Your task to perform on an android device: turn off data saver in the chrome app Image 0: 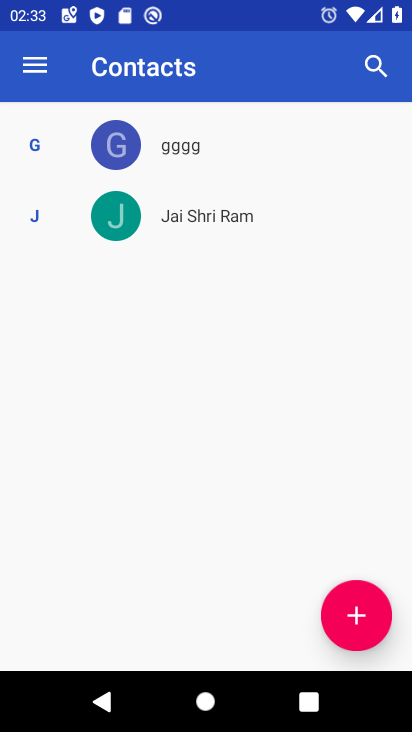
Step 0: press home button
Your task to perform on an android device: turn off data saver in the chrome app Image 1: 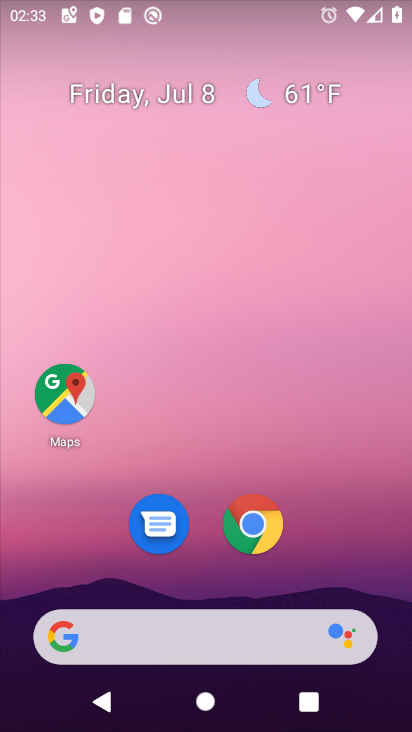
Step 1: click (271, 528)
Your task to perform on an android device: turn off data saver in the chrome app Image 2: 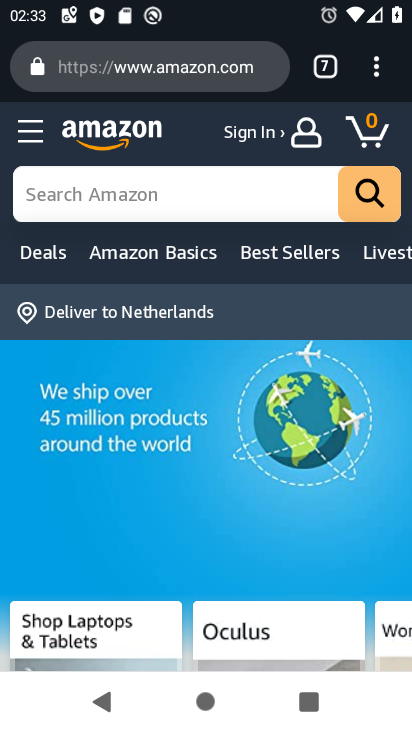
Step 2: click (378, 72)
Your task to perform on an android device: turn off data saver in the chrome app Image 3: 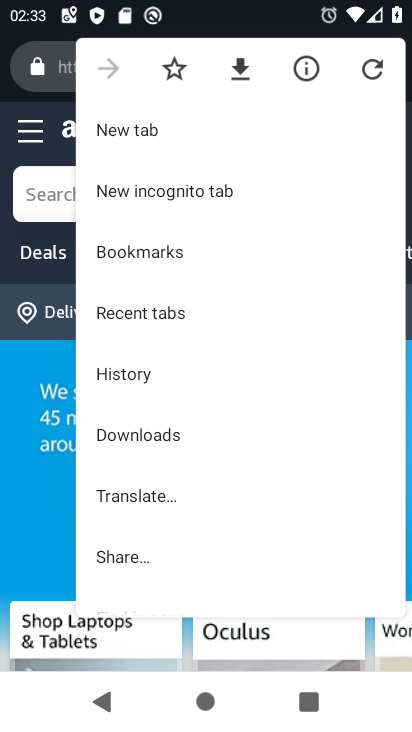
Step 3: drag from (249, 431) to (266, 186)
Your task to perform on an android device: turn off data saver in the chrome app Image 4: 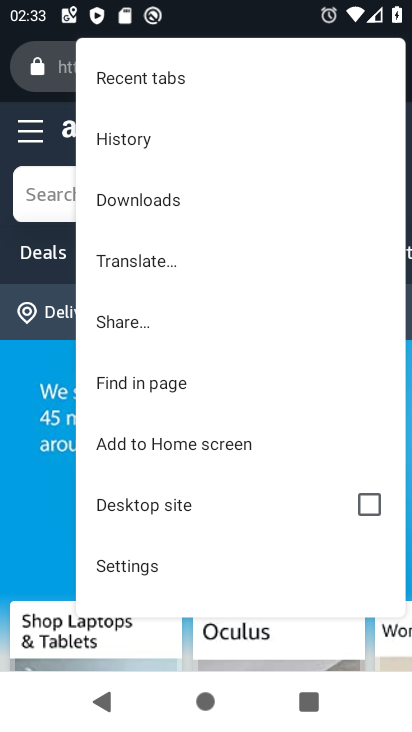
Step 4: click (150, 561)
Your task to perform on an android device: turn off data saver in the chrome app Image 5: 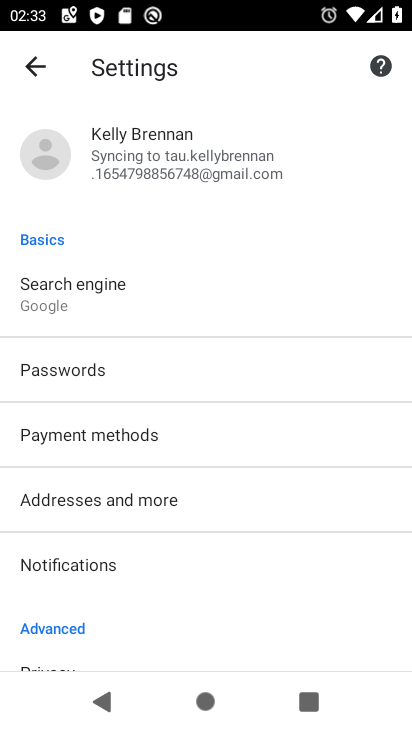
Step 5: drag from (225, 597) to (252, 22)
Your task to perform on an android device: turn off data saver in the chrome app Image 6: 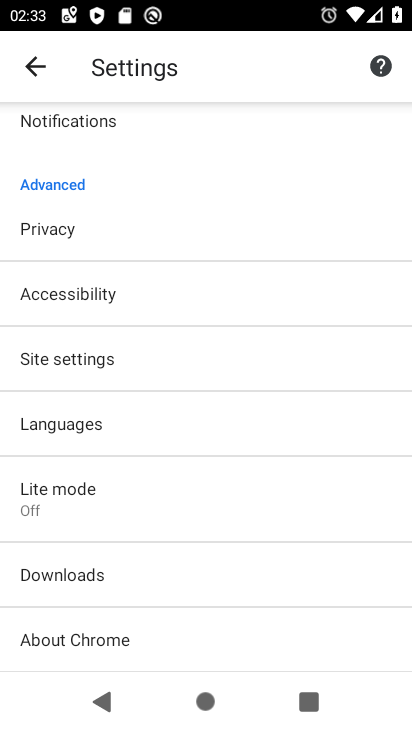
Step 6: click (90, 488)
Your task to perform on an android device: turn off data saver in the chrome app Image 7: 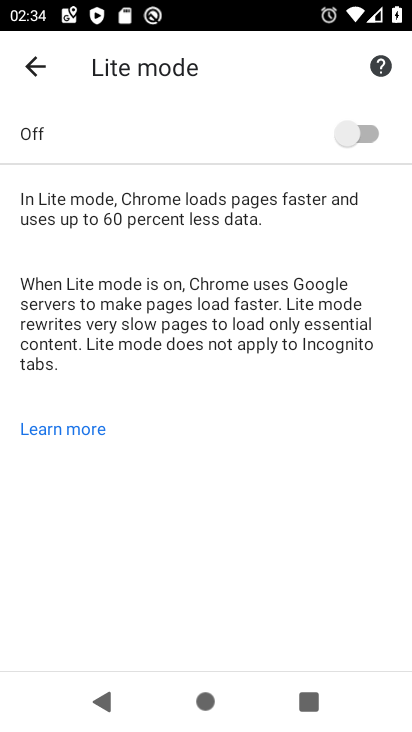
Step 7: task complete